Your task to perform on an android device: toggle location history Image 0: 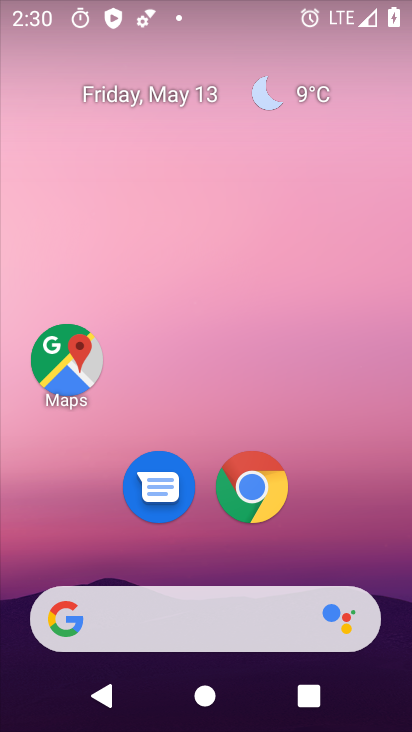
Step 0: drag from (180, 554) to (251, 66)
Your task to perform on an android device: toggle location history Image 1: 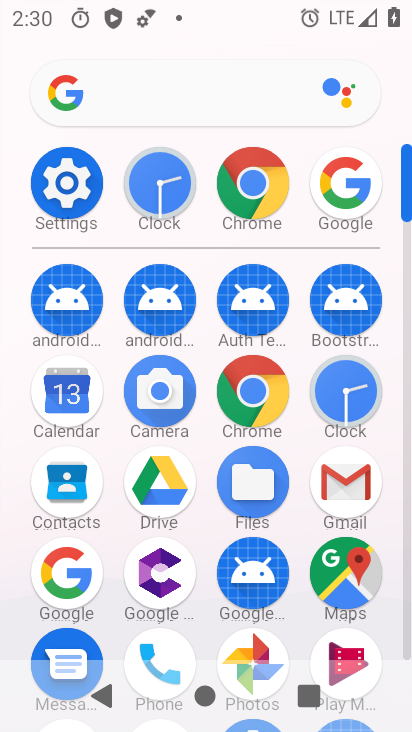
Step 1: click (49, 186)
Your task to perform on an android device: toggle location history Image 2: 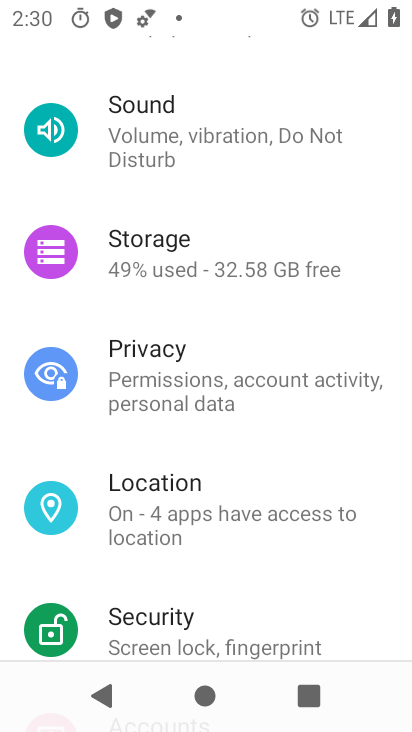
Step 2: click (232, 523)
Your task to perform on an android device: toggle location history Image 3: 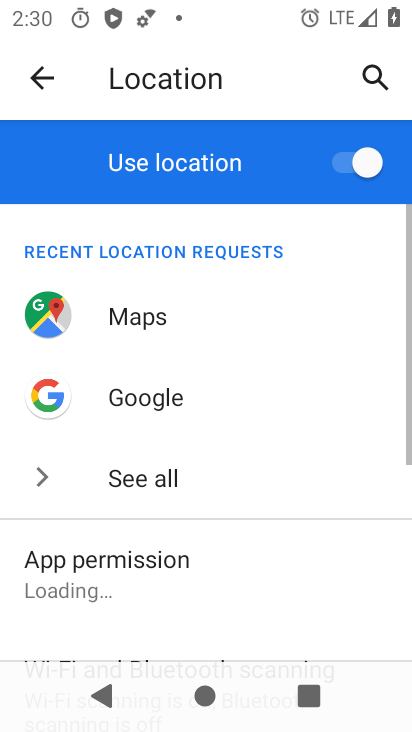
Step 3: drag from (268, 519) to (330, 58)
Your task to perform on an android device: toggle location history Image 4: 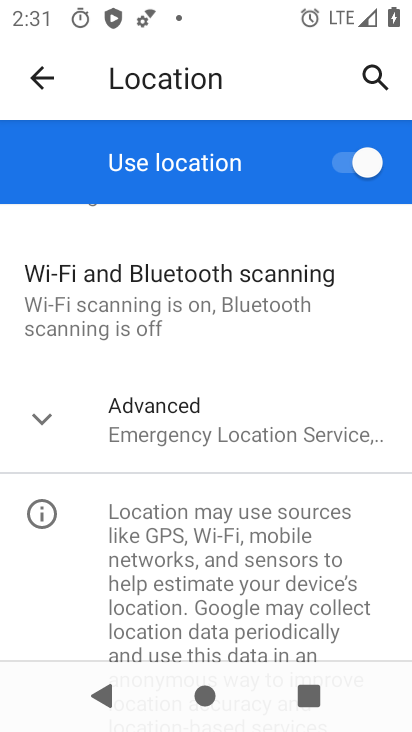
Step 4: click (134, 405)
Your task to perform on an android device: toggle location history Image 5: 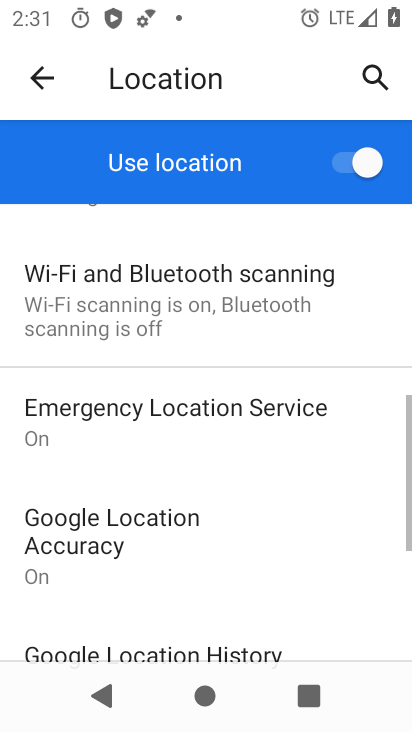
Step 5: drag from (148, 583) to (156, 408)
Your task to perform on an android device: toggle location history Image 6: 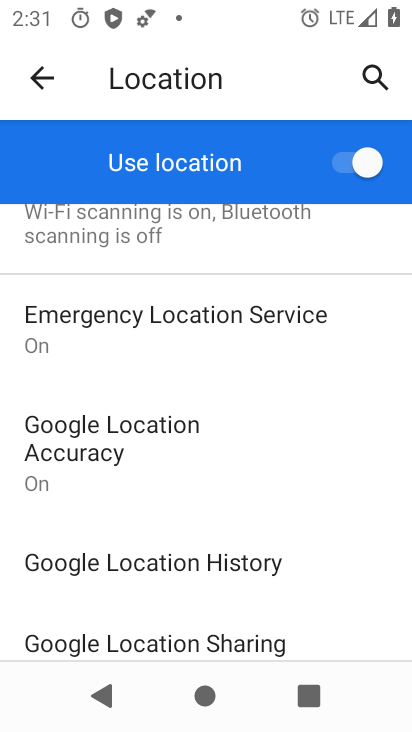
Step 6: click (205, 578)
Your task to perform on an android device: toggle location history Image 7: 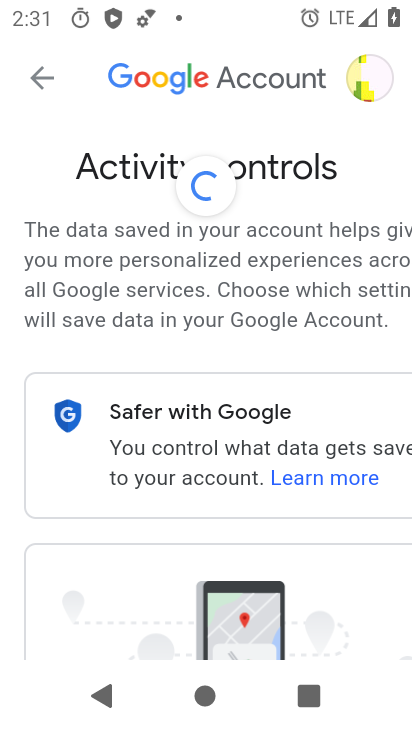
Step 7: drag from (268, 611) to (263, 109)
Your task to perform on an android device: toggle location history Image 8: 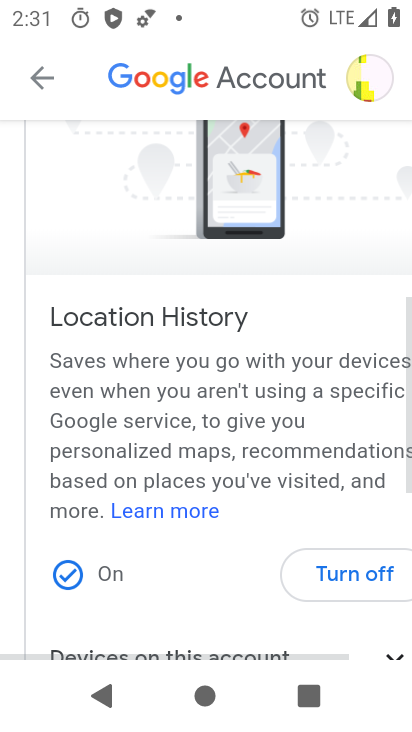
Step 8: drag from (185, 576) to (189, 422)
Your task to perform on an android device: toggle location history Image 9: 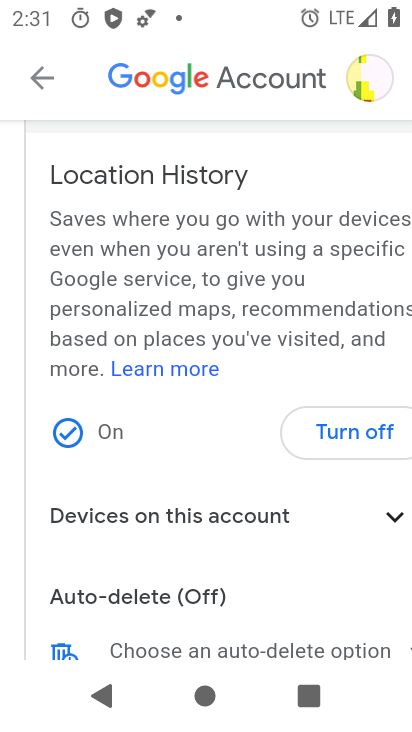
Step 9: click (339, 432)
Your task to perform on an android device: toggle location history Image 10: 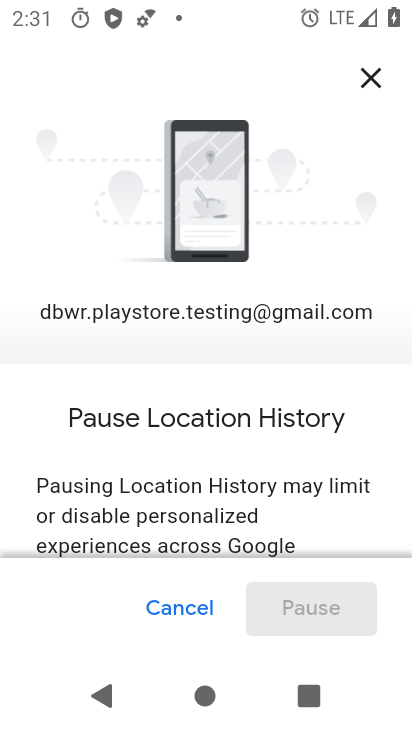
Step 10: drag from (299, 494) to (302, 1)
Your task to perform on an android device: toggle location history Image 11: 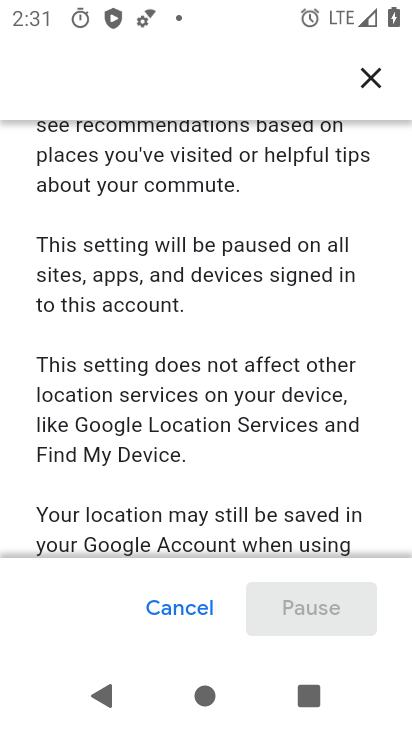
Step 11: drag from (317, 466) to (313, 44)
Your task to perform on an android device: toggle location history Image 12: 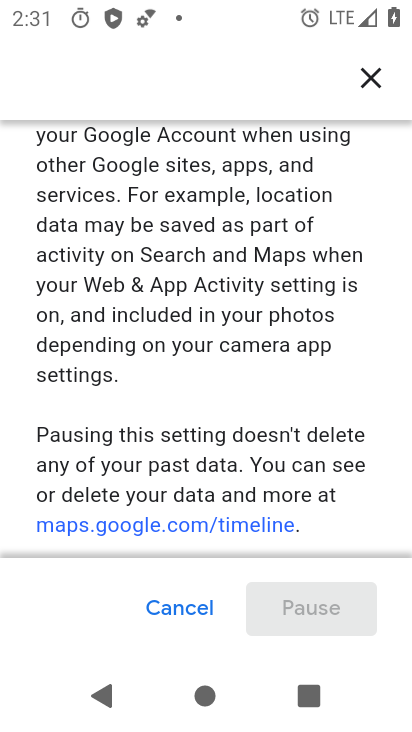
Step 12: drag from (285, 460) to (290, 131)
Your task to perform on an android device: toggle location history Image 13: 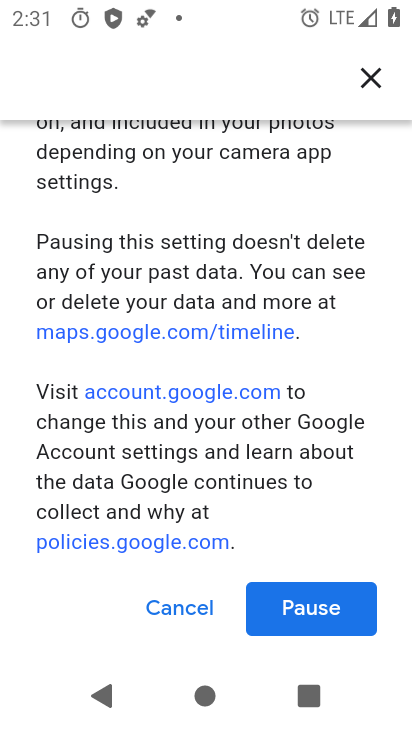
Step 13: click (312, 612)
Your task to perform on an android device: toggle location history Image 14: 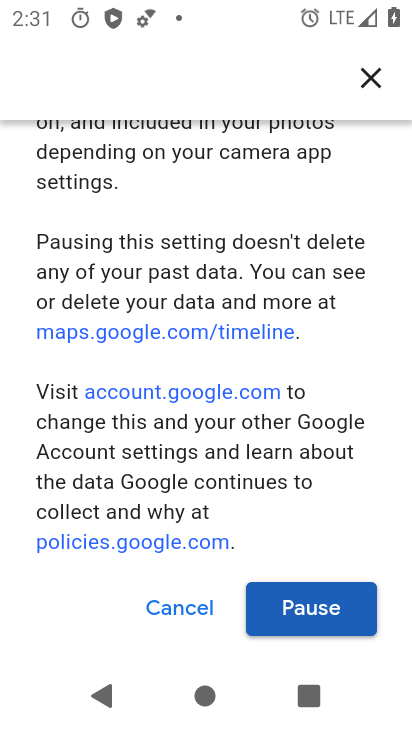
Step 14: click (312, 612)
Your task to perform on an android device: toggle location history Image 15: 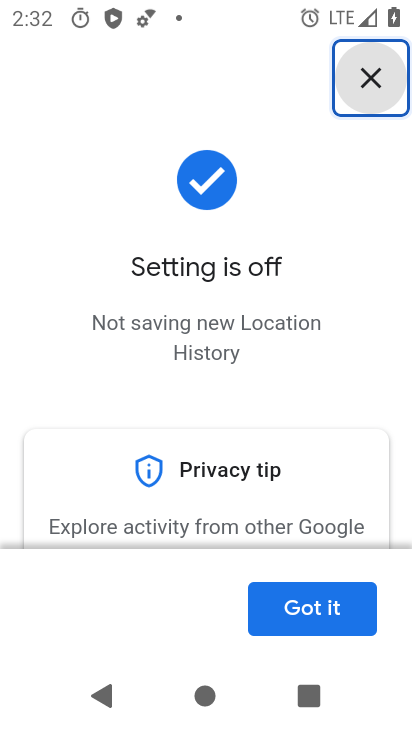
Step 15: task complete